Your task to perform on an android device: Open Chrome and go to settings Image 0: 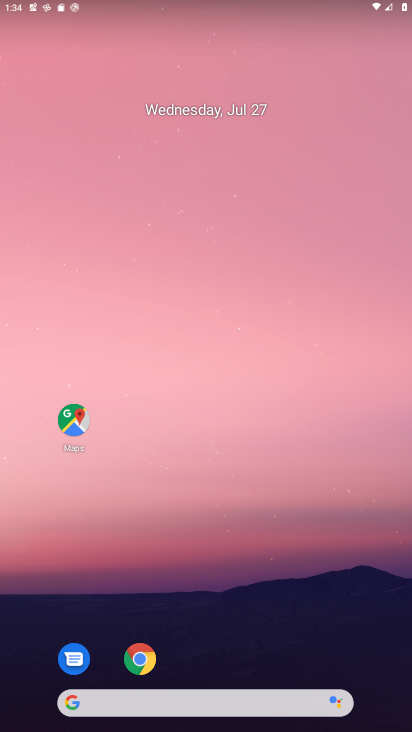
Step 0: click (144, 664)
Your task to perform on an android device: Open Chrome and go to settings Image 1: 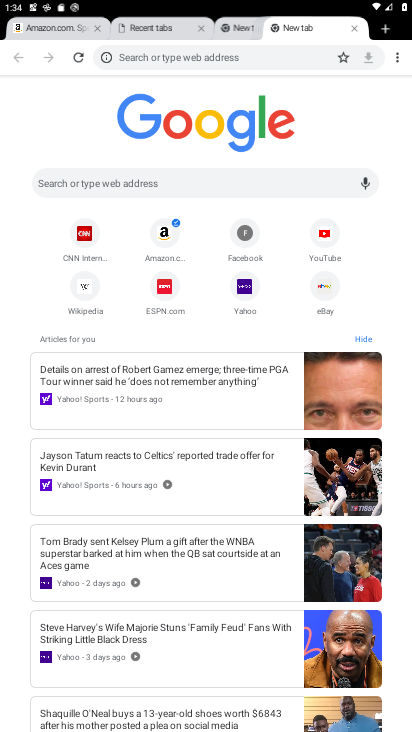
Step 1: click (354, 28)
Your task to perform on an android device: Open Chrome and go to settings Image 2: 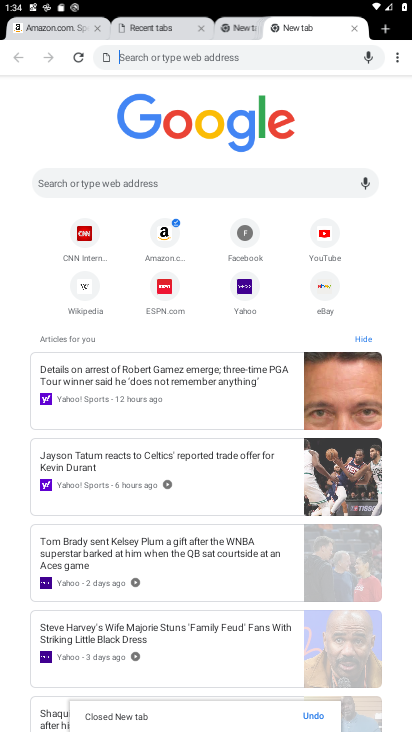
Step 2: click (354, 28)
Your task to perform on an android device: Open Chrome and go to settings Image 3: 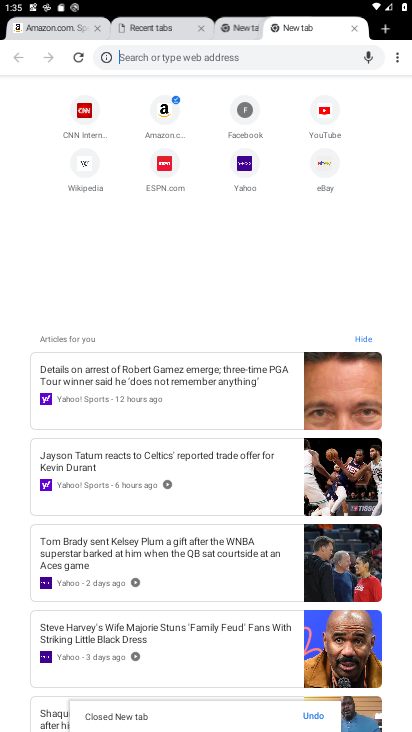
Step 3: click (354, 28)
Your task to perform on an android device: Open Chrome and go to settings Image 4: 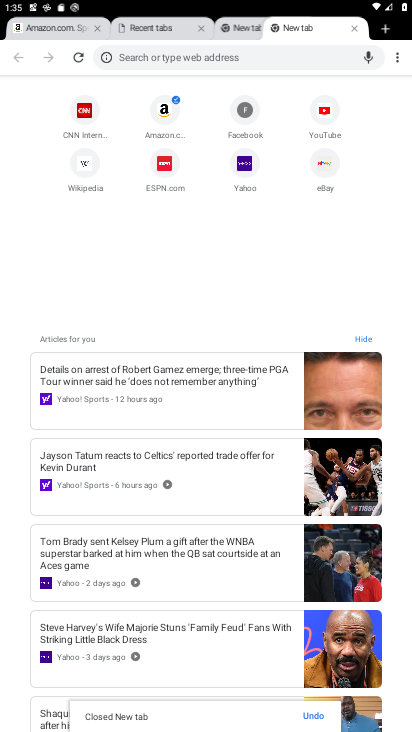
Step 4: click (354, 28)
Your task to perform on an android device: Open Chrome and go to settings Image 5: 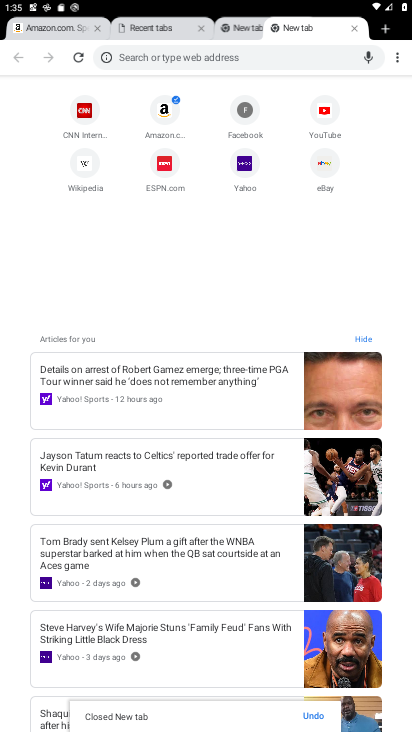
Step 5: click (354, 28)
Your task to perform on an android device: Open Chrome and go to settings Image 6: 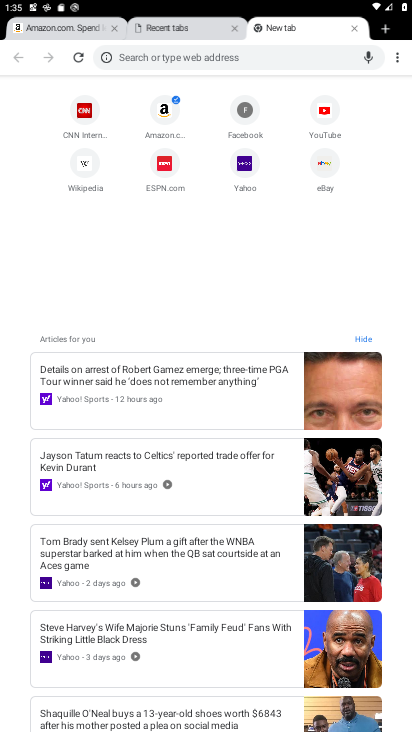
Step 6: click (354, 26)
Your task to perform on an android device: Open Chrome and go to settings Image 7: 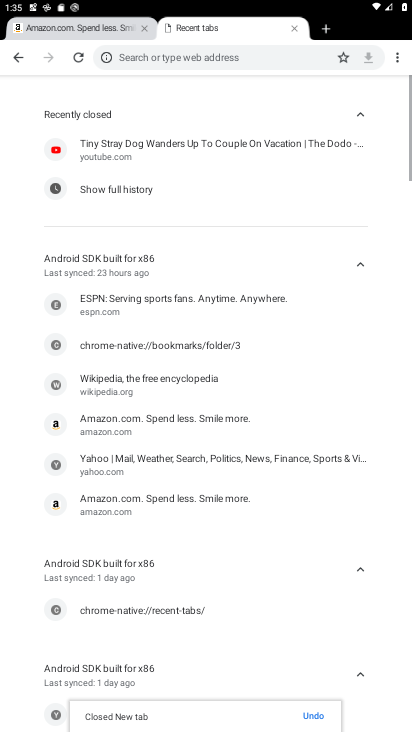
Step 7: click (395, 61)
Your task to perform on an android device: Open Chrome and go to settings Image 8: 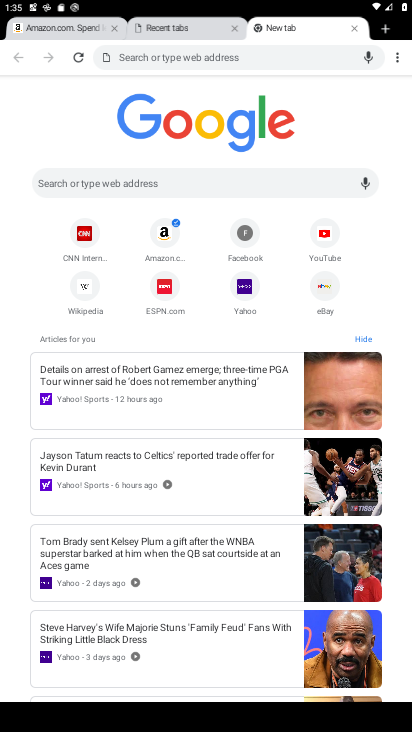
Step 8: click (401, 54)
Your task to perform on an android device: Open Chrome and go to settings Image 9: 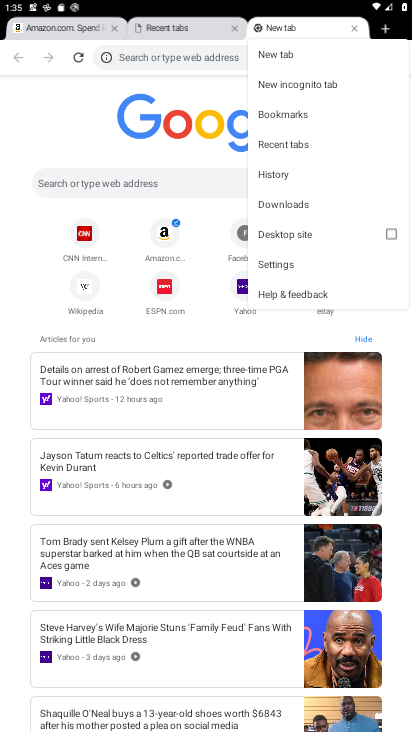
Step 9: click (278, 264)
Your task to perform on an android device: Open Chrome and go to settings Image 10: 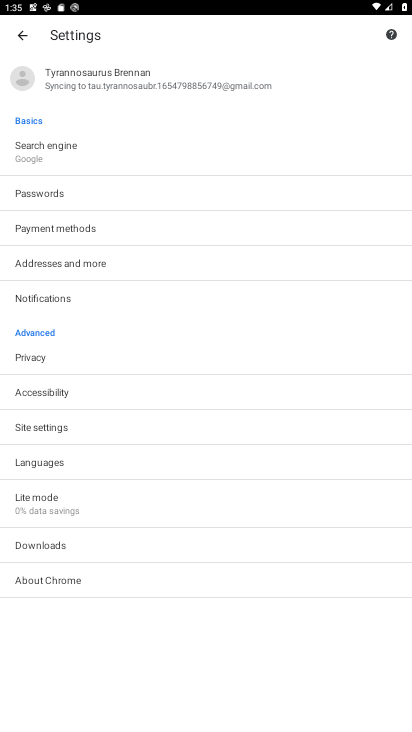
Step 10: task complete